Your task to perform on an android device: toggle improve location accuracy Image 0: 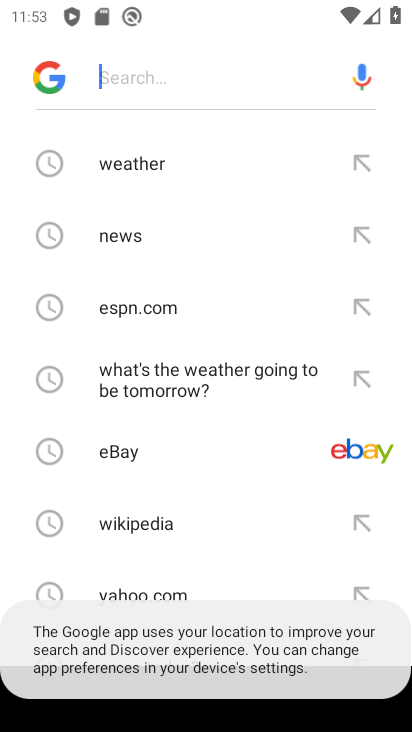
Step 0: press home button
Your task to perform on an android device: toggle improve location accuracy Image 1: 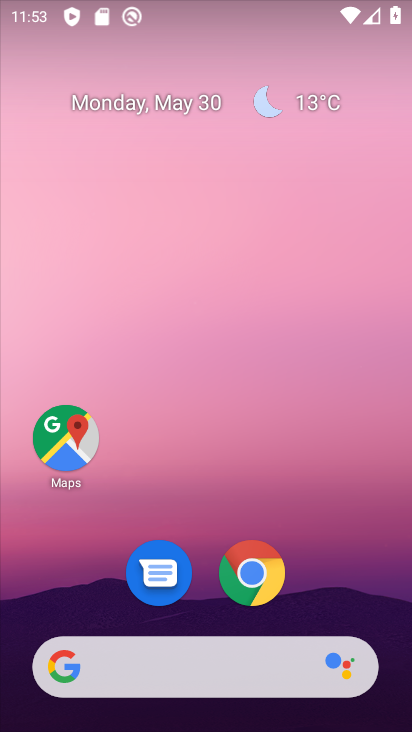
Step 1: drag from (49, 618) to (262, 182)
Your task to perform on an android device: toggle improve location accuracy Image 2: 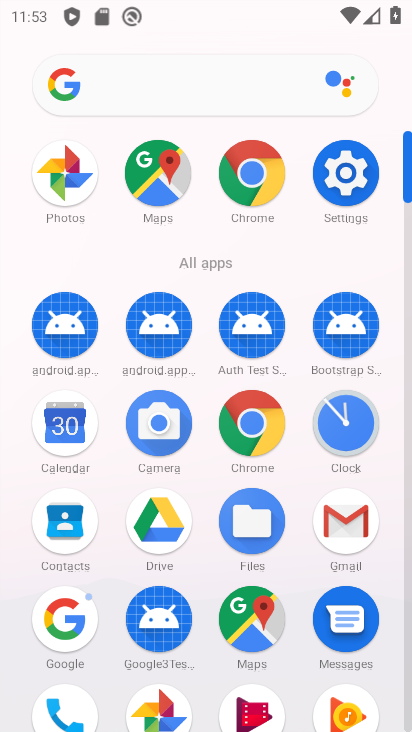
Step 2: drag from (182, 556) to (260, 306)
Your task to perform on an android device: toggle improve location accuracy Image 3: 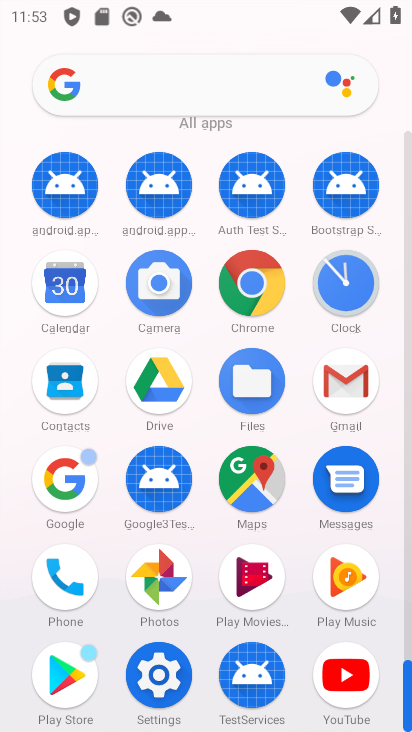
Step 3: click (146, 691)
Your task to perform on an android device: toggle improve location accuracy Image 4: 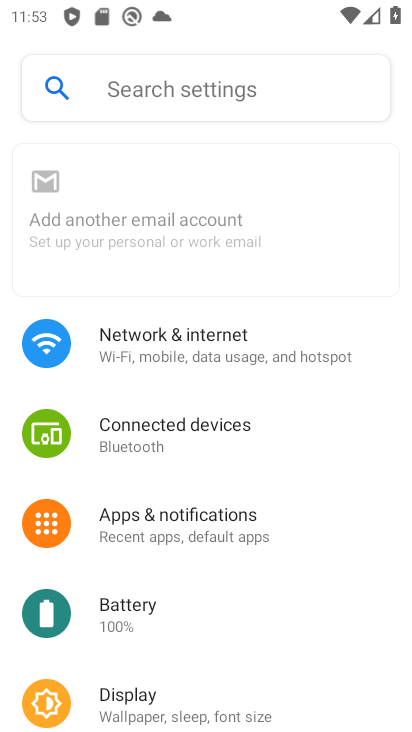
Step 4: drag from (166, 656) to (297, 226)
Your task to perform on an android device: toggle improve location accuracy Image 5: 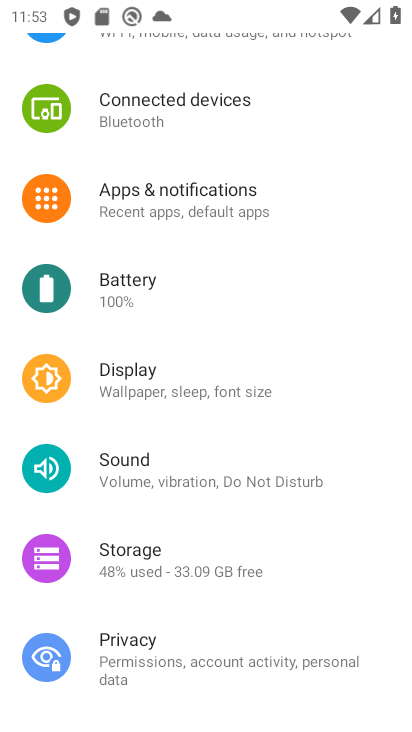
Step 5: drag from (215, 559) to (270, 422)
Your task to perform on an android device: toggle improve location accuracy Image 6: 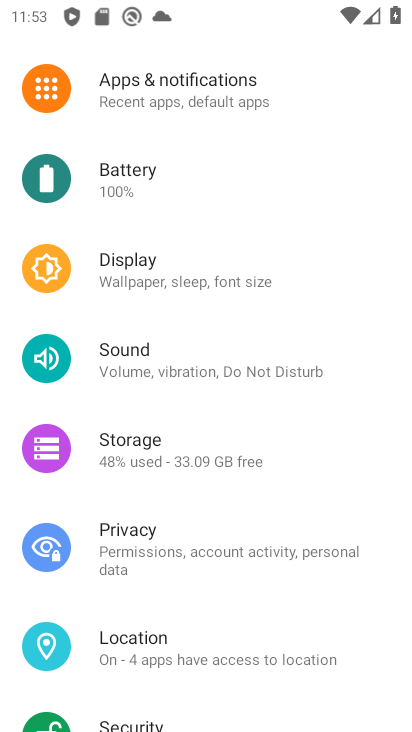
Step 6: click (171, 660)
Your task to perform on an android device: toggle improve location accuracy Image 7: 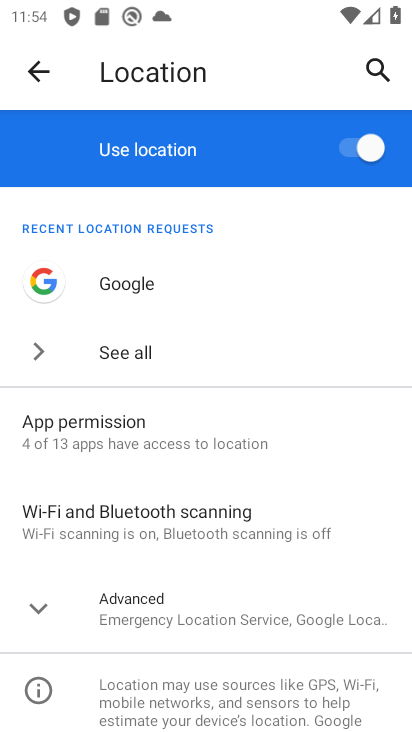
Step 7: click (227, 633)
Your task to perform on an android device: toggle improve location accuracy Image 8: 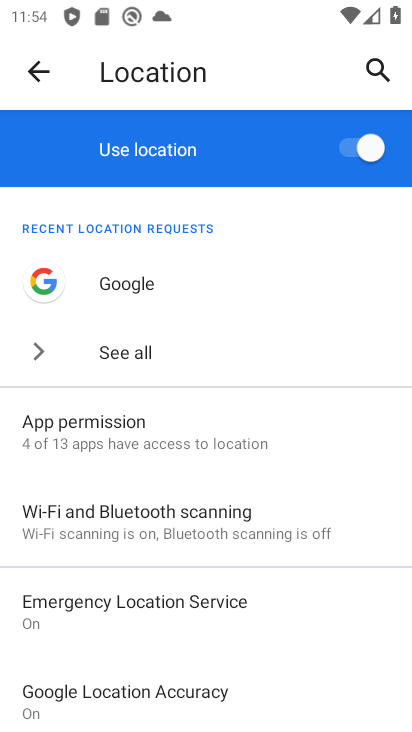
Step 8: drag from (228, 646) to (360, 304)
Your task to perform on an android device: toggle improve location accuracy Image 9: 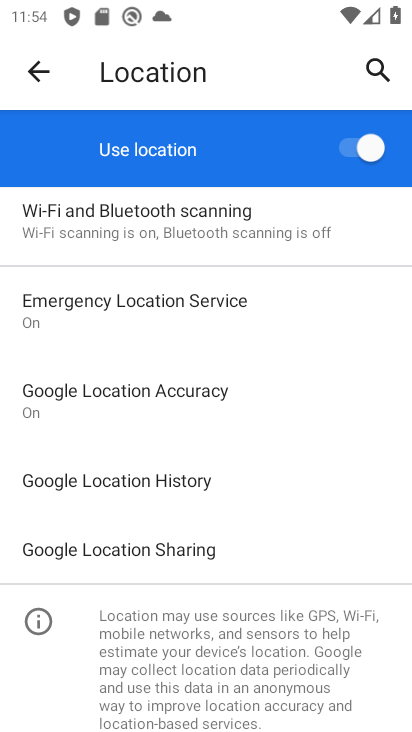
Step 9: click (228, 383)
Your task to perform on an android device: toggle improve location accuracy Image 10: 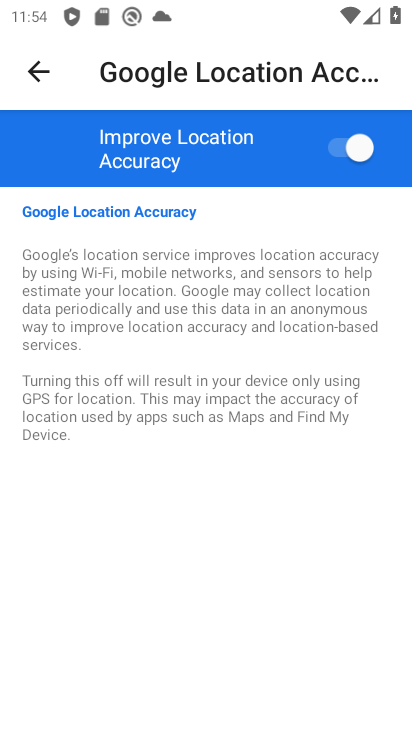
Step 10: click (336, 145)
Your task to perform on an android device: toggle improve location accuracy Image 11: 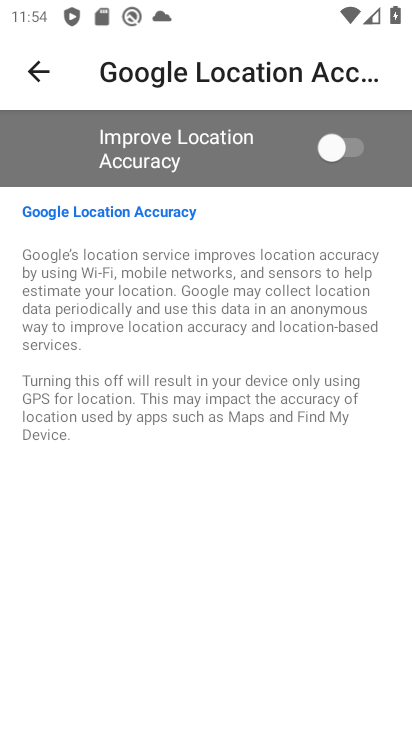
Step 11: task complete